Your task to perform on an android device: open a new tab in the chrome app Image 0: 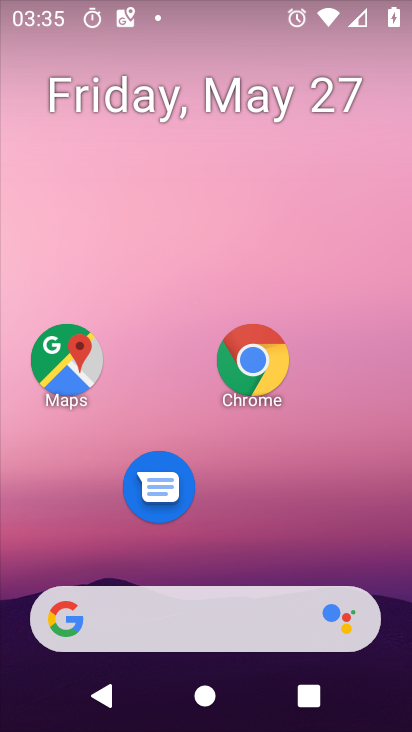
Step 0: click (255, 356)
Your task to perform on an android device: open a new tab in the chrome app Image 1: 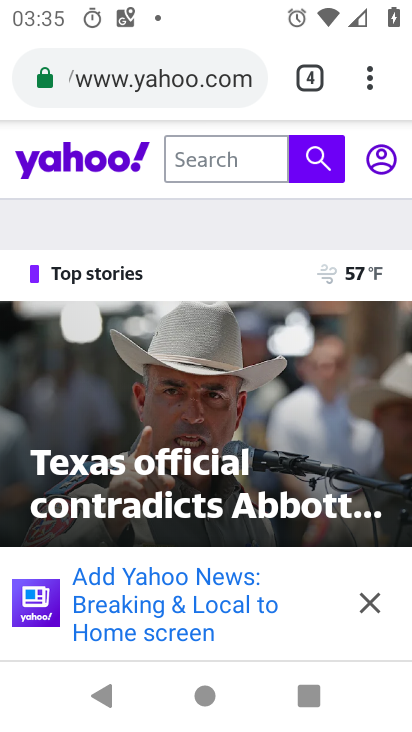
Step 1: click (309, 66)
Your task to perform on an android device: open a new tab in the chrome app Image 2: 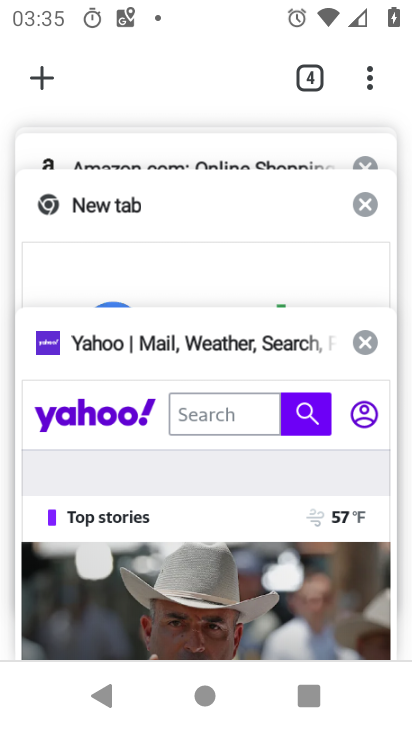
Step 2: click (55, 76)
Your task to perform on an android device: open a new tab in the chrome app Image 3: 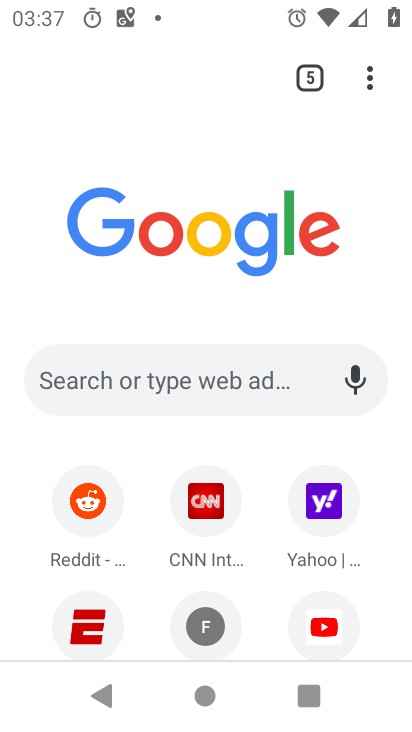
Step 3: task complete